Your task to perform on an android device: Search for sushi restaurants on Maps Image 0: 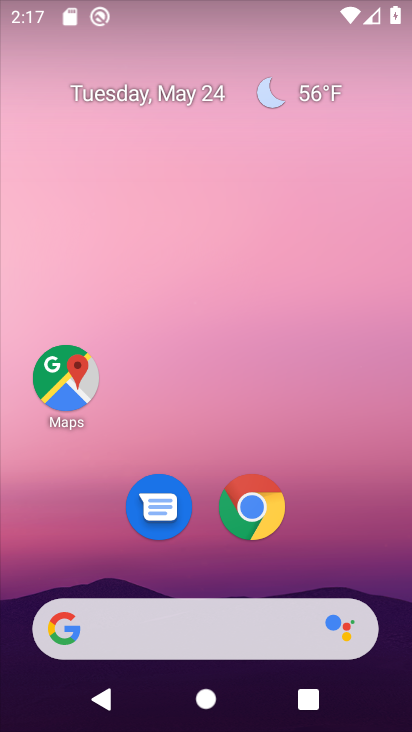
Step 0: press home button
Your task to perform on an android device: Search for sushi restaurants on Maps Image 1: 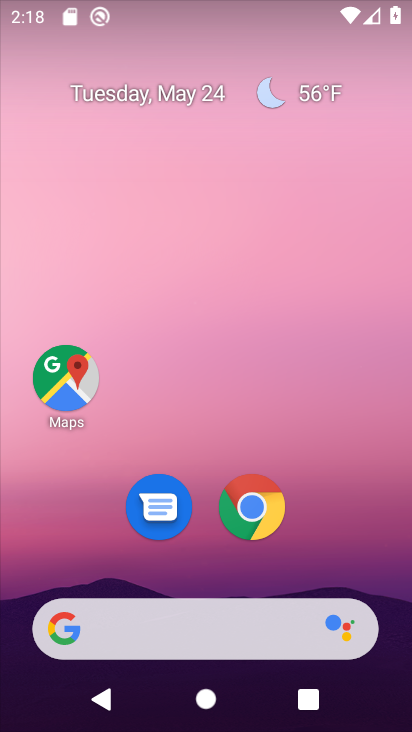
Step 1: drag from (209, 573) to (215, 0)
Your task to perform on an android device: Search for sushi restaurants on Maps Image 2: 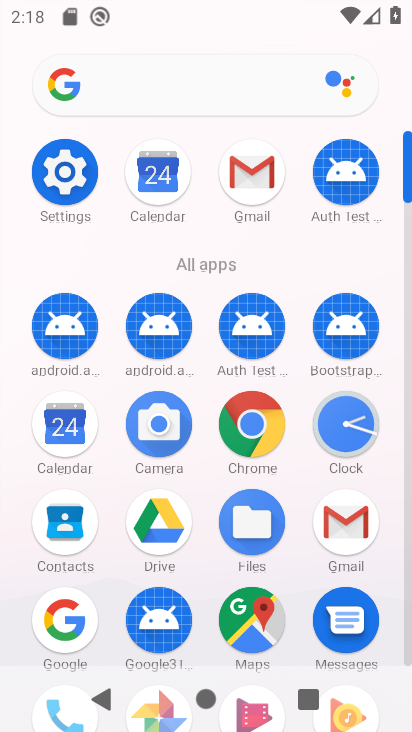
Step 2: click (256, 619)
Your task to perform on an android device: Search for sushi restaurants on Maps Image 3: 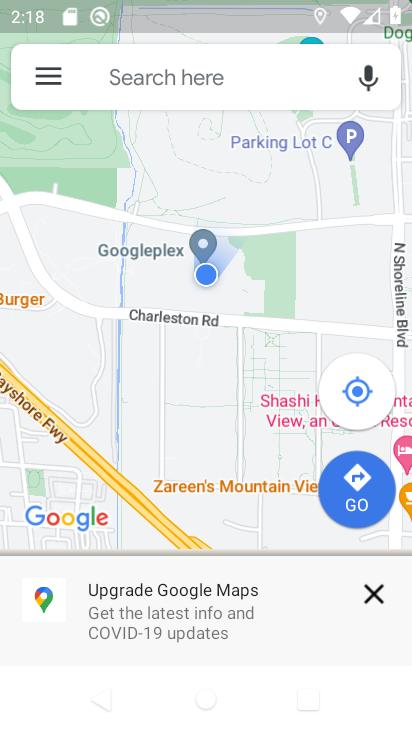
Step 3: click (164, 80)
Your task to perform on an android device: Search for sushi restaurants on Maps Image 4: 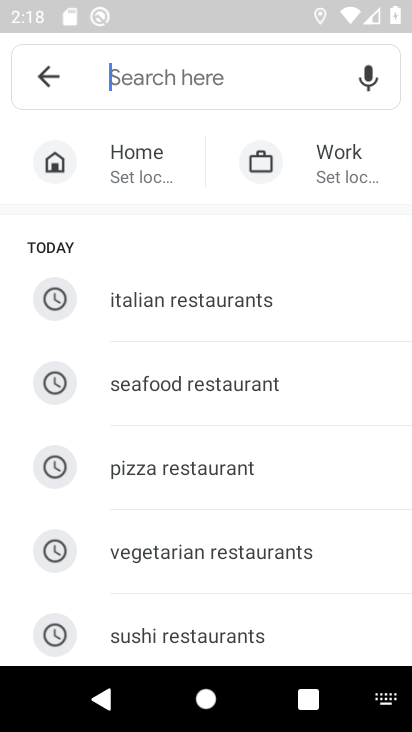
Step 4: type "sushi"
Your task to perform on an android device: Search for sushi restaurants on Maps Image 5: 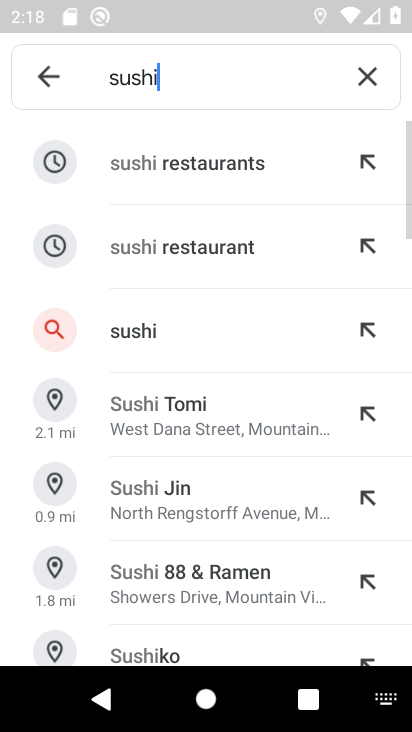
Step 5: click (175, 165)
Your task to perform on an android device: Search for sushi restaurants on Maps Image 6: 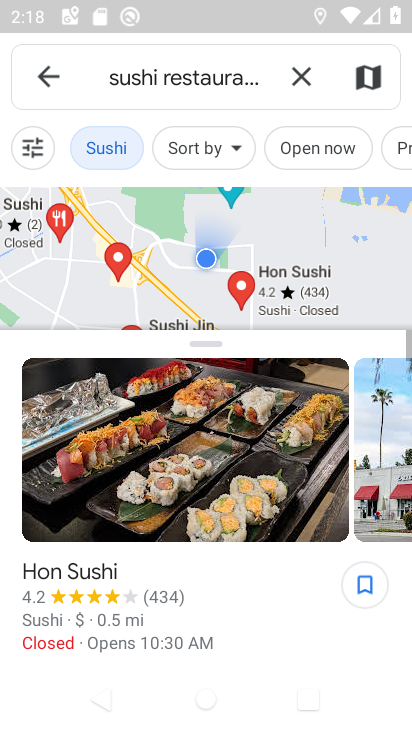
Step 6: drag from (214, 601) to (236, 151)
Your task to perform on an android device: Search for sushi restaurants on Maps Image 7: 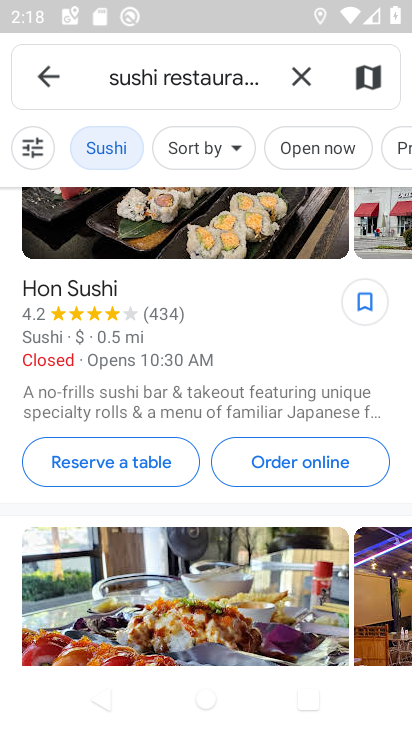
Step 7: drag from (216, 631) to (246, 150)
Your task to perform on an android device: Search for sushi restaurants on Maps Image 8: 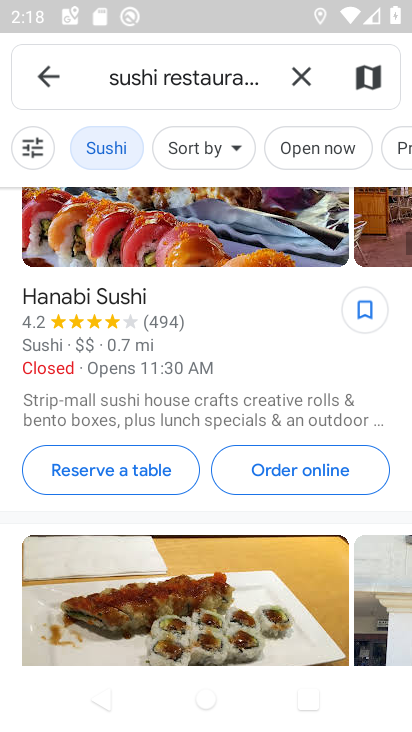
Step 8: click (215, 593)
Your task to perform on an android device: Search for sushi restaurants on Maps Image 9: 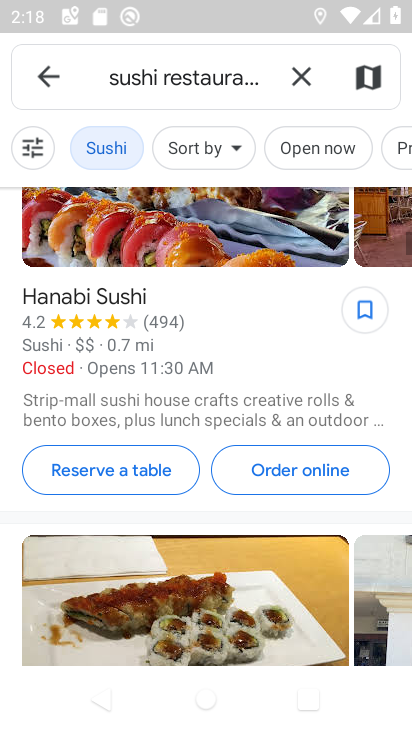
Step 9: task complete